Your task to perform on an android device: Clear the shopping cart on target. Search for "logitech g pro" on target, select the first entry, add it to the cart, then select checkout. Image 0: 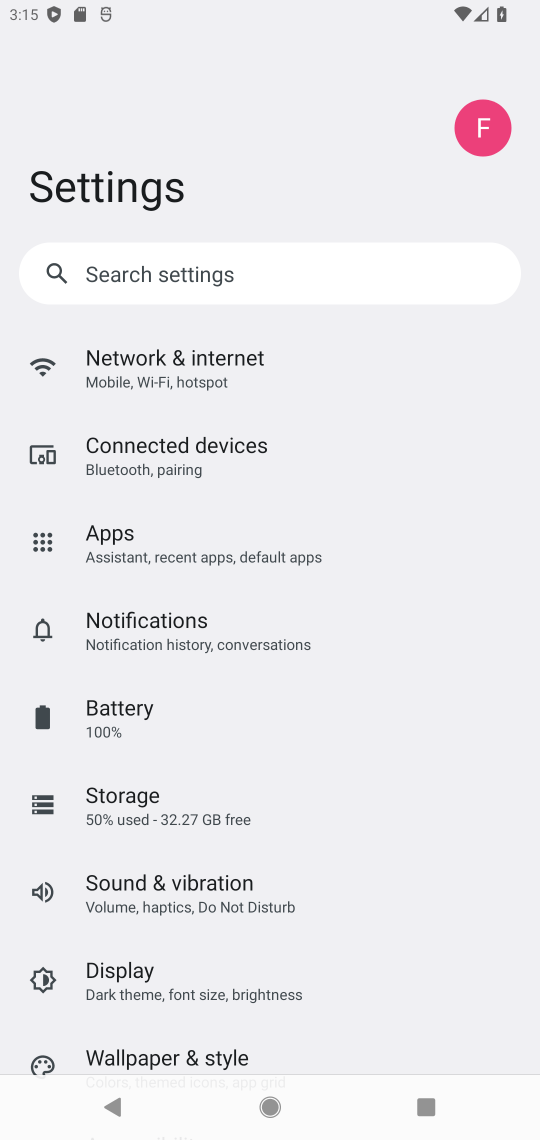
Step 0: press home button
Your task to perform on an android device: Clear the shopping cart on target. Search for "logitech g pro" on target, select the first entry, add it to the cart, then select checkout. Image 1: 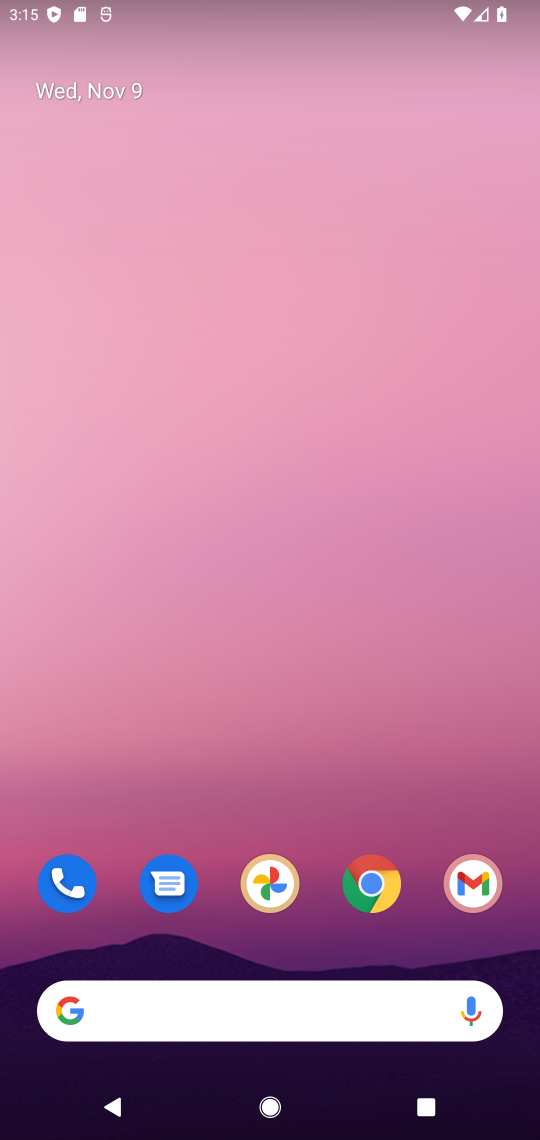
Step 1: click (387, 891)
Your task to perform on an android device: Clear the shopping cart on target. Search for "logitech g pro" on target, select the first entry, add it to the cart, then select checkout. Image 2: 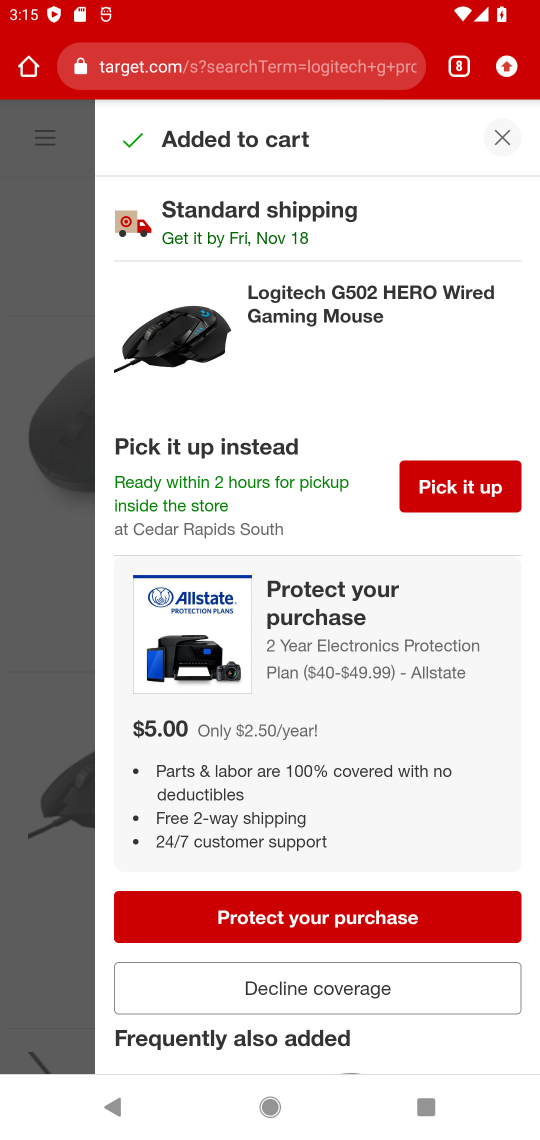
Step 2: click (264, 960)
Your task to perform on an android device: Clear the shopping cart on target. Search for "logitech g pro" on target, select the first entry, add it to the cart, then select checkout. Image 3: 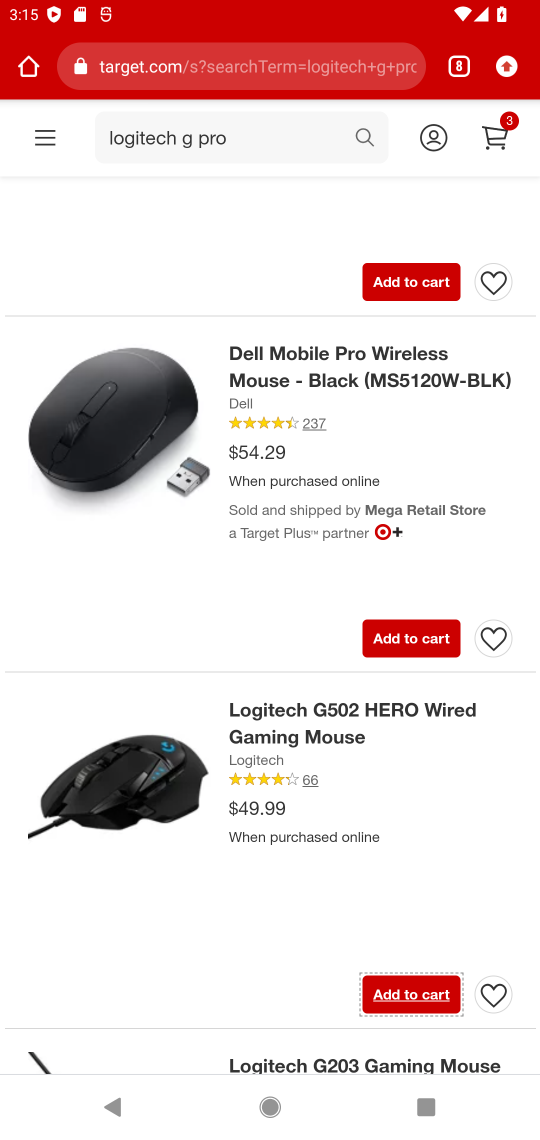
Step 3: click (491, 133)
Your task to perform on an android device: Clear the shopping cart on target. Search for "logitech g pro" on target, select the first entry, add it to the cart, then select checkout. Image 4: 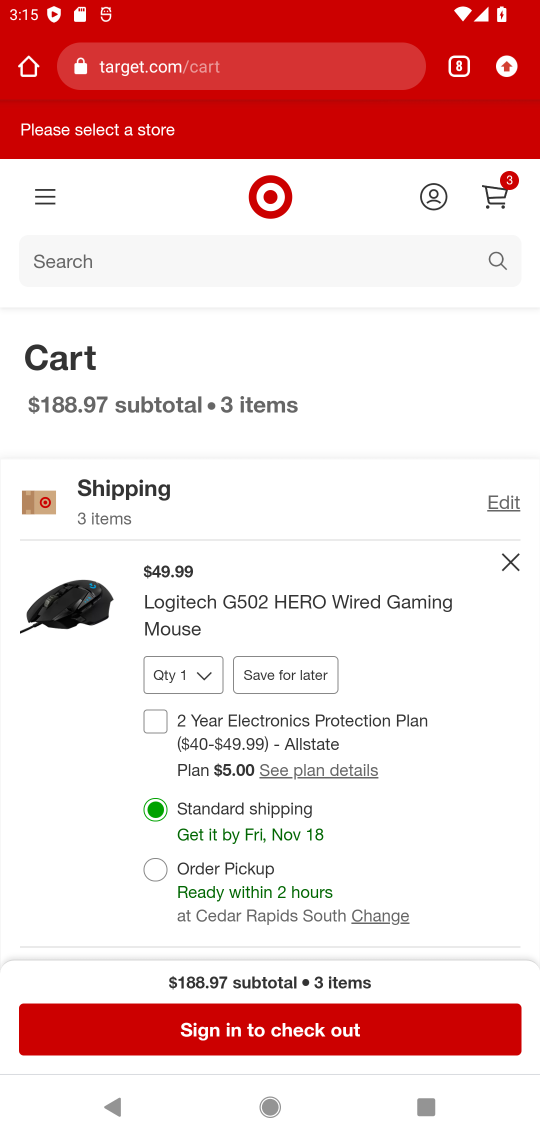
Step 4: click (507, 562)
Your task to perform on an android device: Clear the shopping cart on target. Search for "logitech g pro" on target, select the first entry, add it to the cart, then select checkout. Image 5: 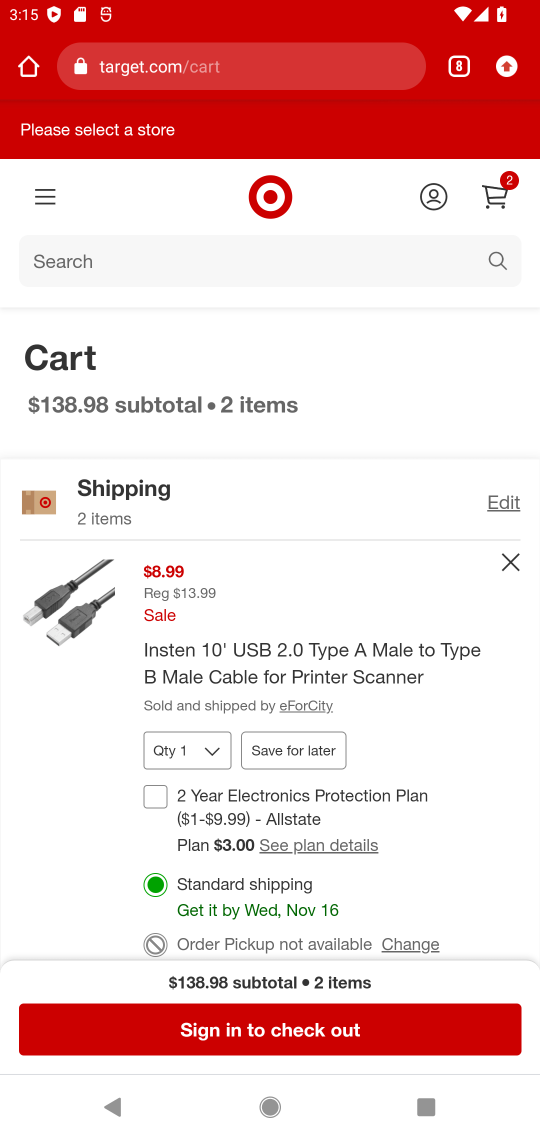
Step 5: click (508, 559)
Your task to perform on an android device: Clear the shopping cart on target. Search for "logitech g pro" on target, select the first entry, add it to the cart, then select checkout. Image 6: 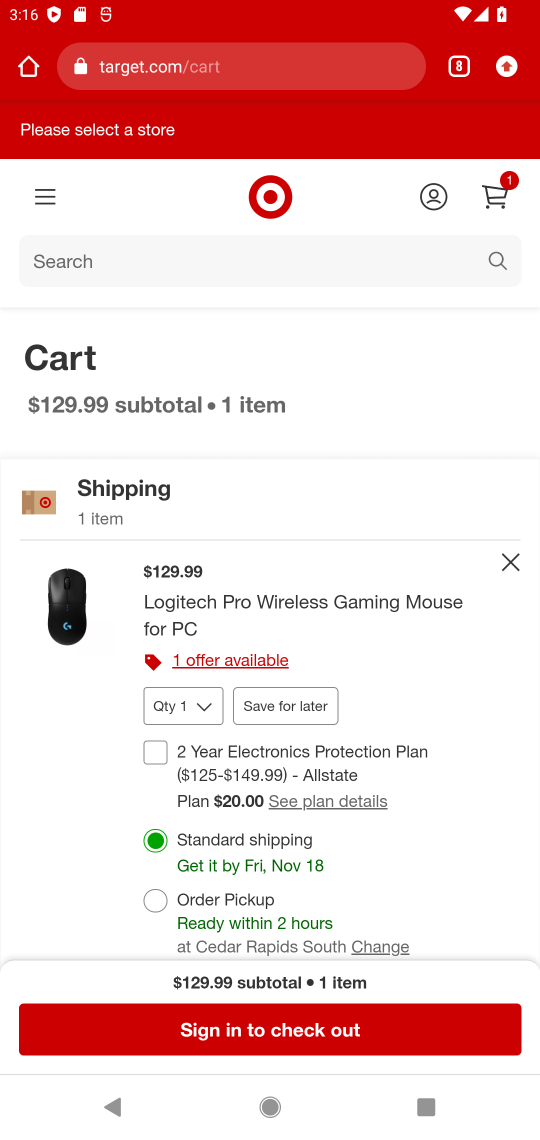
Step 6: click (508, 559)
Your task to perform on an android device: Clear the shopping cart on target. Search for "logitech g pro" on target, select the first entry, add it to the cart, then select checkout. Image 7: 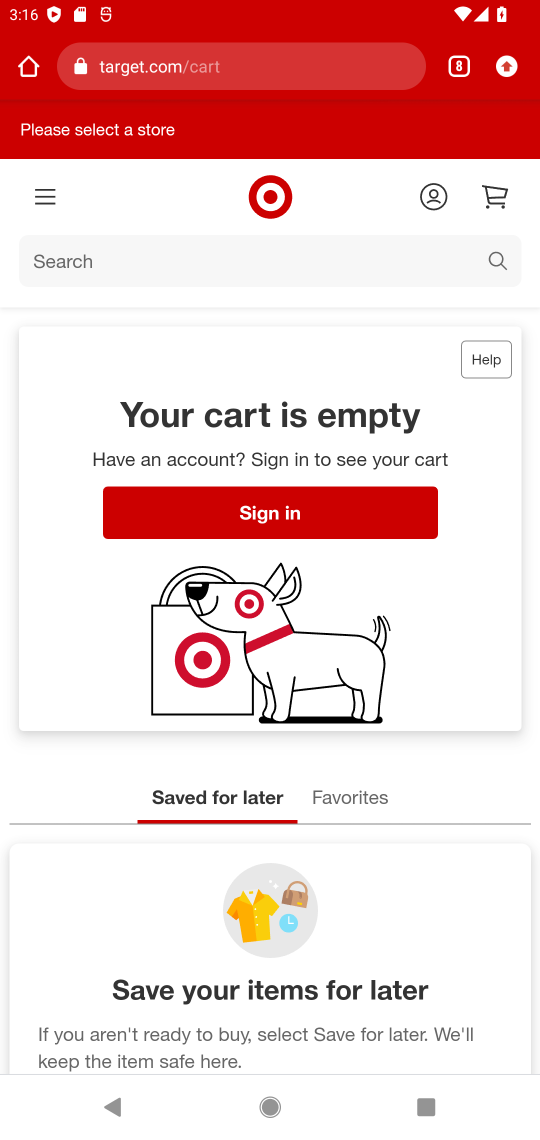
Step 7: click (68, 265)
Your task to perform on an android device: Clear the shopping cart on target. Search for "logitech g pro" on target, select the first entry, add it to the cart, then select checkout. Image 8: 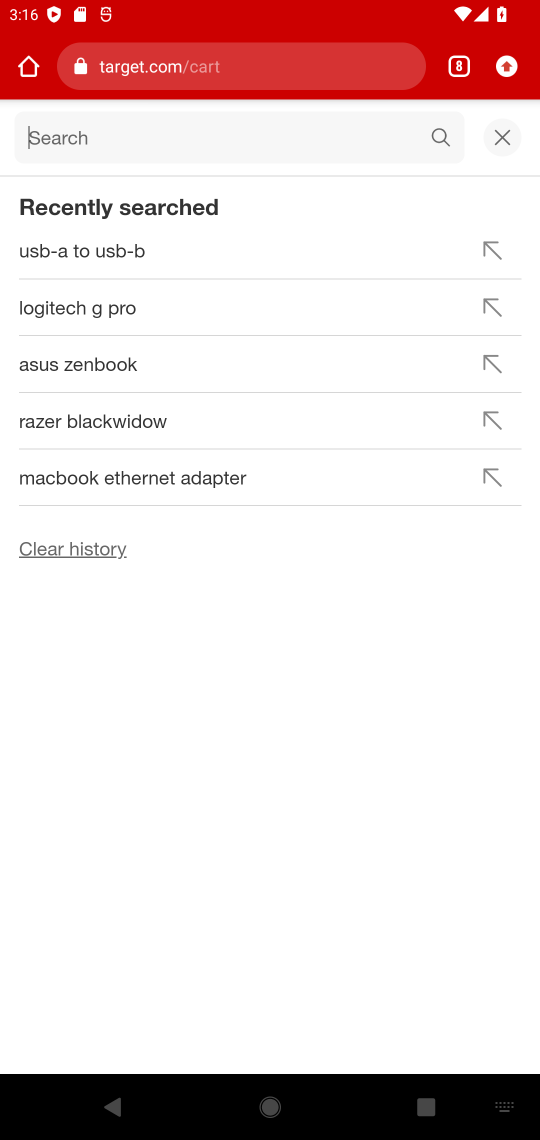
Step 8: type "logitech g pro"
Your task to perform on an android device: Clear the shopping cart on target. Search for "logitech g pro" on target, select the first entry, add it to the cart, then select checkout. Image 9: 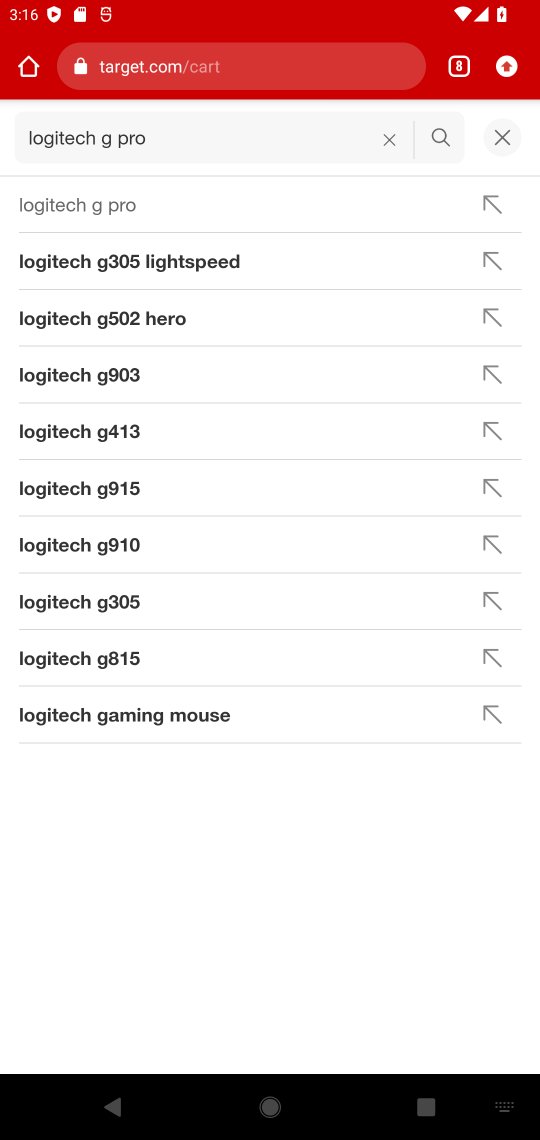
Step 9: click (446, 133)
Your task to perform on an android device: Clear the shopping cart on target. Search for "logitech g pro" on target, select the first entry, add it to the cart, then select checkout. Image 10: 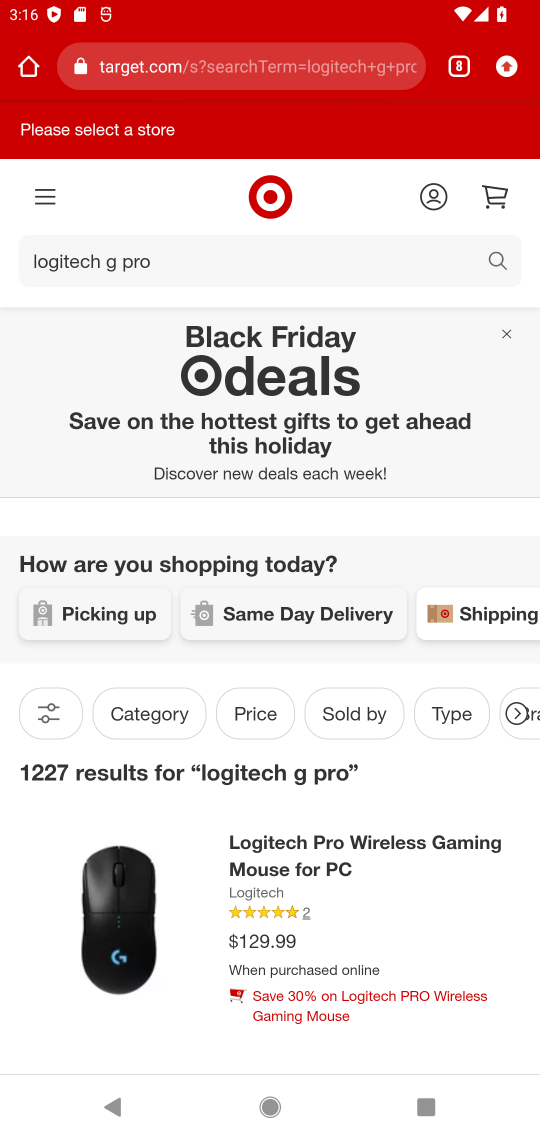
Step 10: task complete